Your task to perform on an android device: check battery use Image 0: 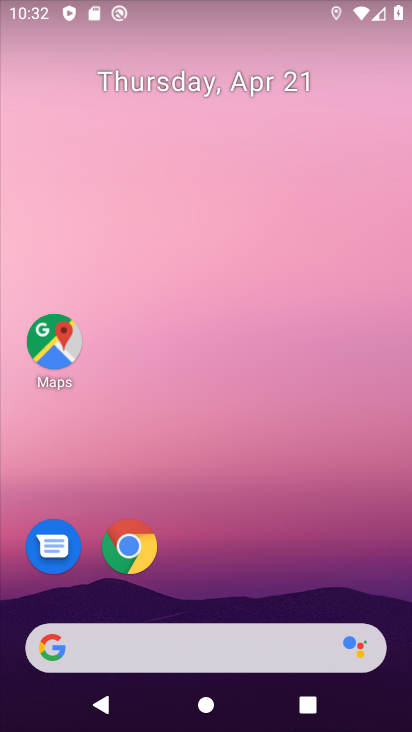
Step 0: drag from (243, 593) to (156, 188)
Your task to perform on an android device: check battery use Image 1: 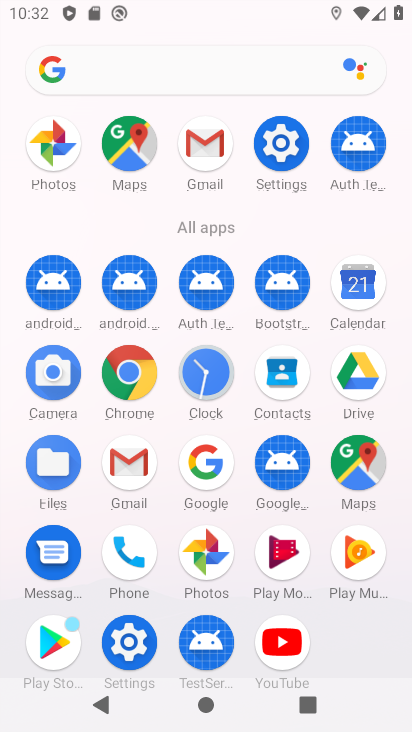
Step 1: click (284, 148)
Your task to perform on an android device: check battery use Image 2: 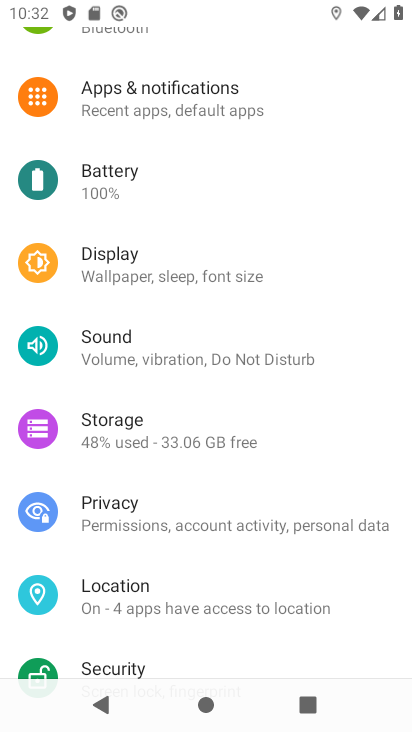
Step 2: click (82, 201)
Your task to perform on an android device: check battery use Image 3: 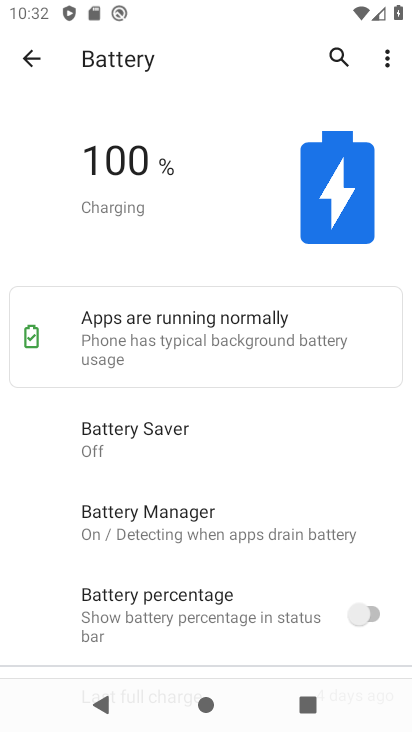
Step 3: task complete